Your task to perform on an android device: open wifi settings Image 0: 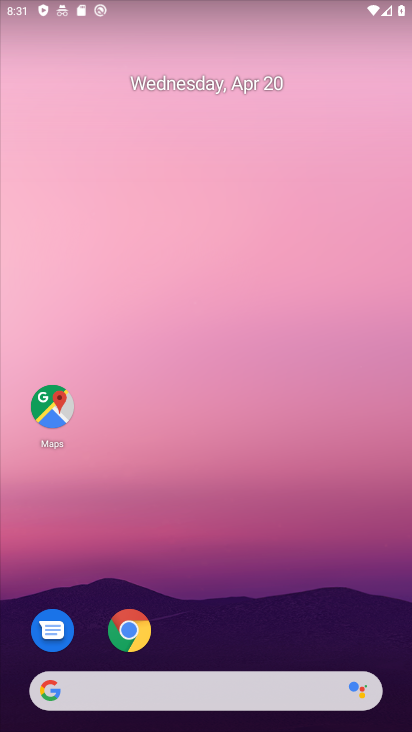
Step 0: drag from (177, 646) to (239, 25)
Your task to perform on an android device: open wifi settings Image 1: 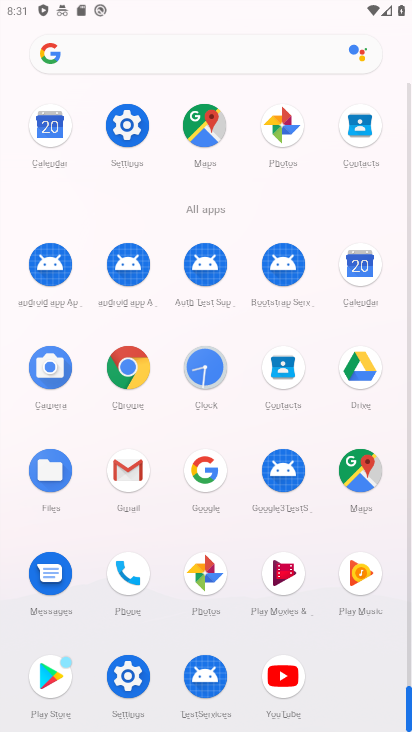
Step 1: click (122, 130)
Your task to perform on an android device: open wifi settings Image 2: 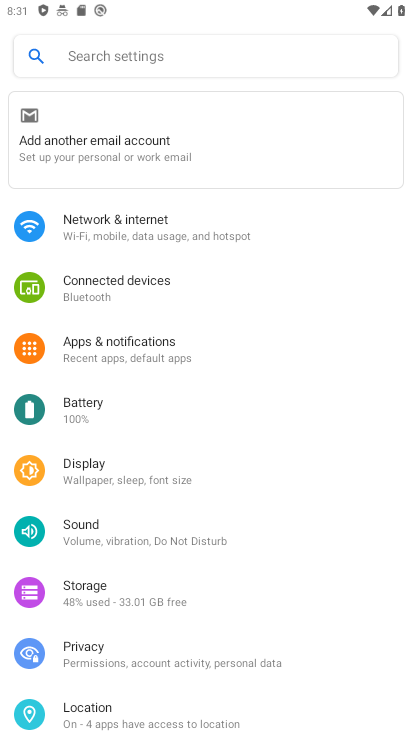
Step 2: click (118, 220)
Your task to perform on an android device: open wifi settings Image 3: 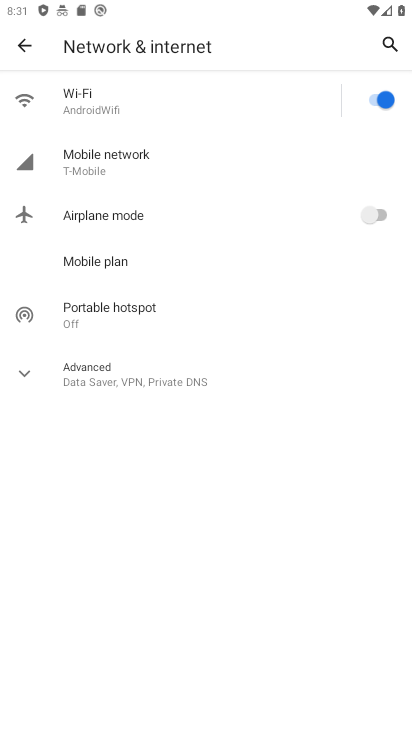
Step 3: click (133, 110)
Your task to perform on an android device: open wifi settings Image 4: 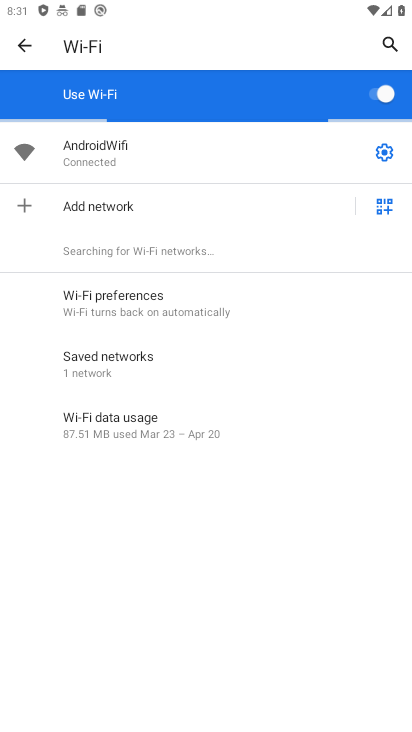
Step 4: task complete